Your task to perform on an android device: refresh tabs in the chrome app Image 0: 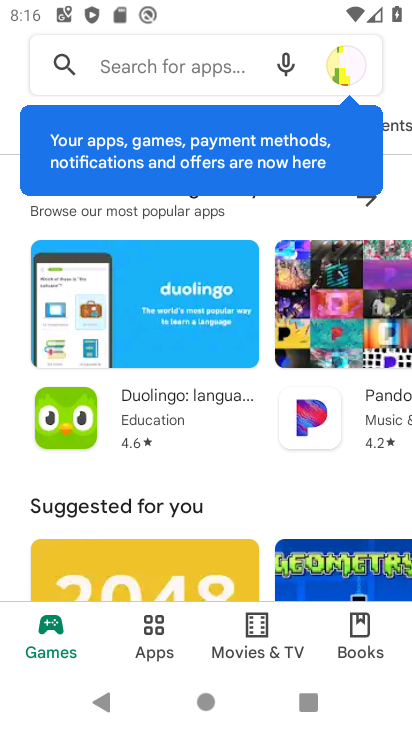
Step 0: press home button
Your task to perform on an android device: refresh tabs in the chrome app Image 1: 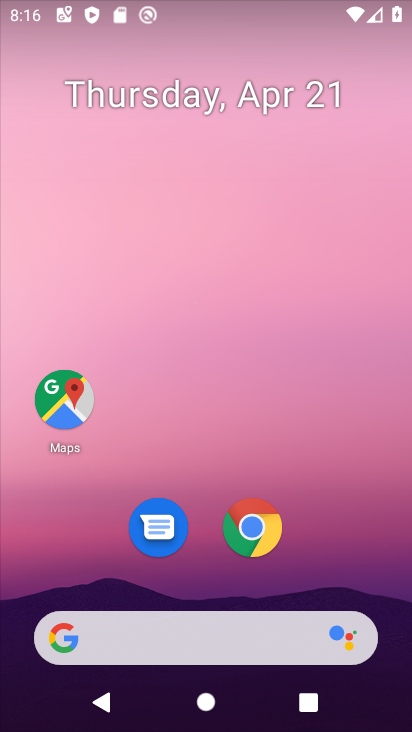
Step 1: click (247, 537)
Your task to perform on an android device: refresh tabs in the chrome app Image 2: 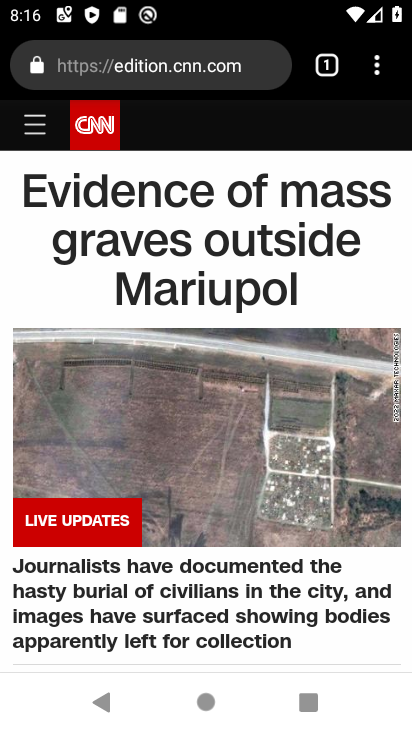
Step 2: click (380, 67)
Your task to perform on an android device: refresh tabs in the chrome app Image 3: 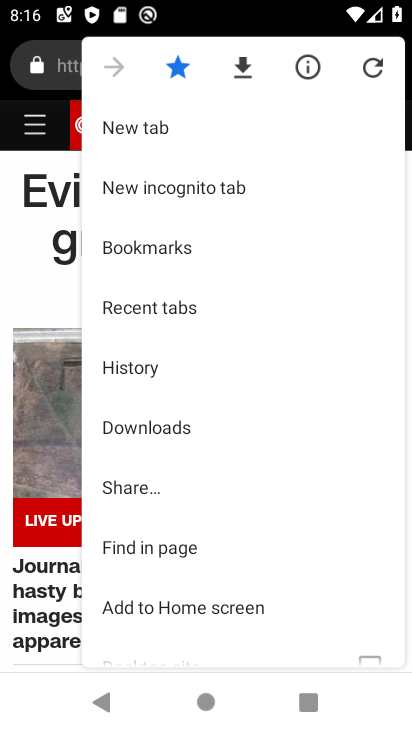
Step 3: click (367, 72)
Your task to perform on an android device: refresh tabs in the chrome app Image 4: 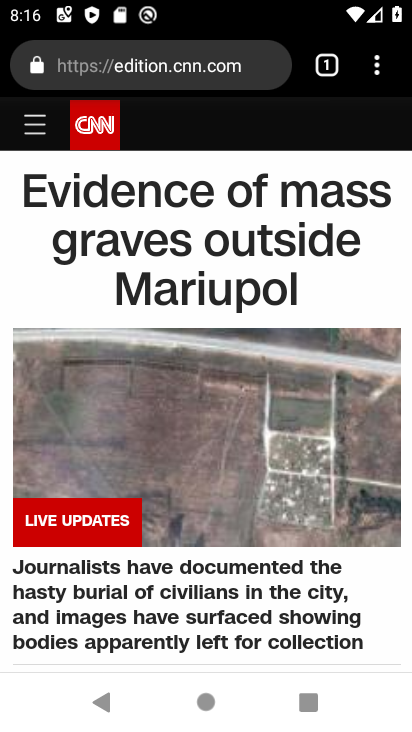
Step 4: task complete